Your task to perform on an android device: delete location history Image 0: 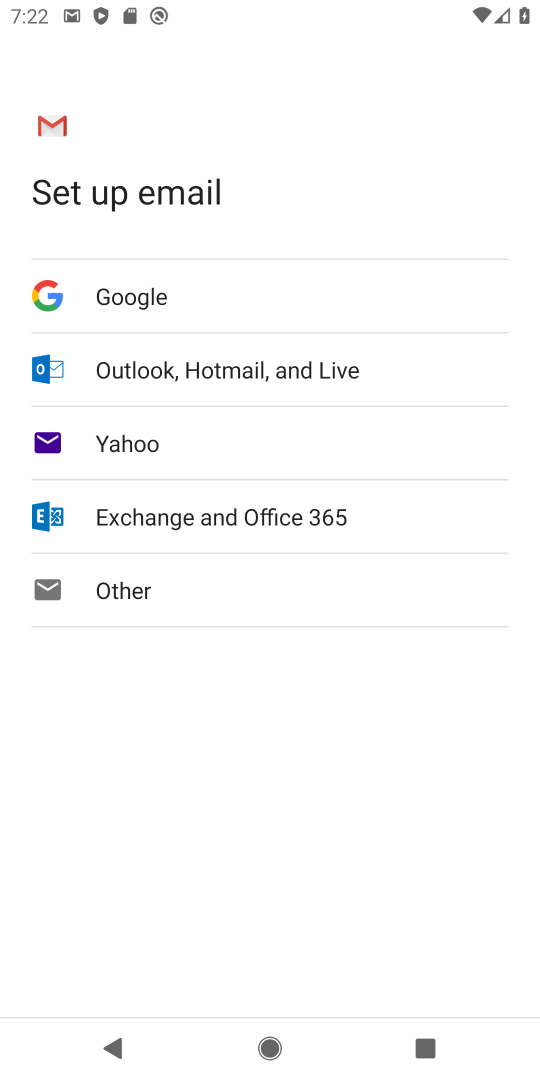
Step 0: press home button
Your task to perform on an android device: delete location history Image 1: 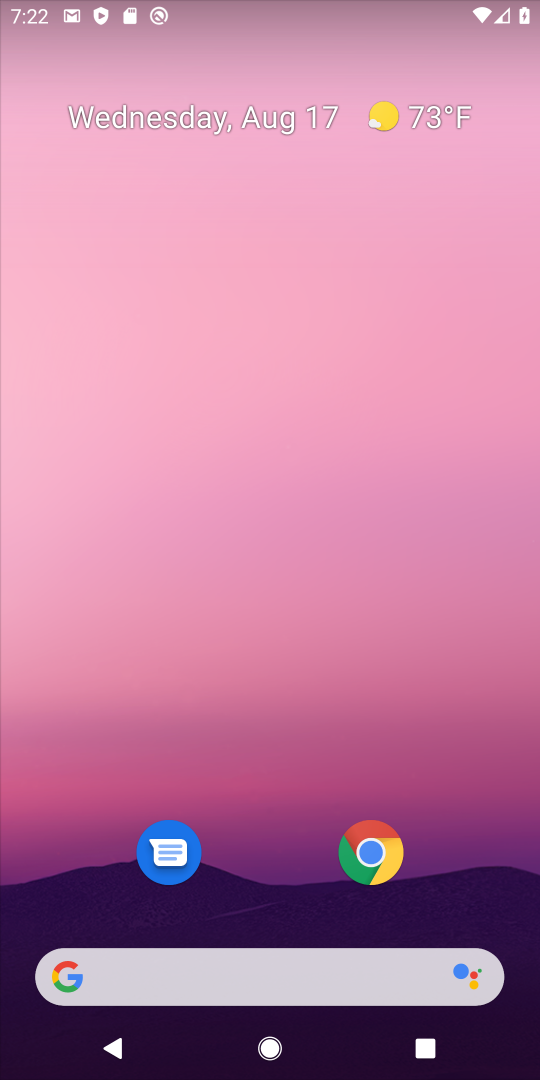
Step 1: drag from (261, 848) to (247, 90)
Your task to perform on an android device: delete location history Image 2: 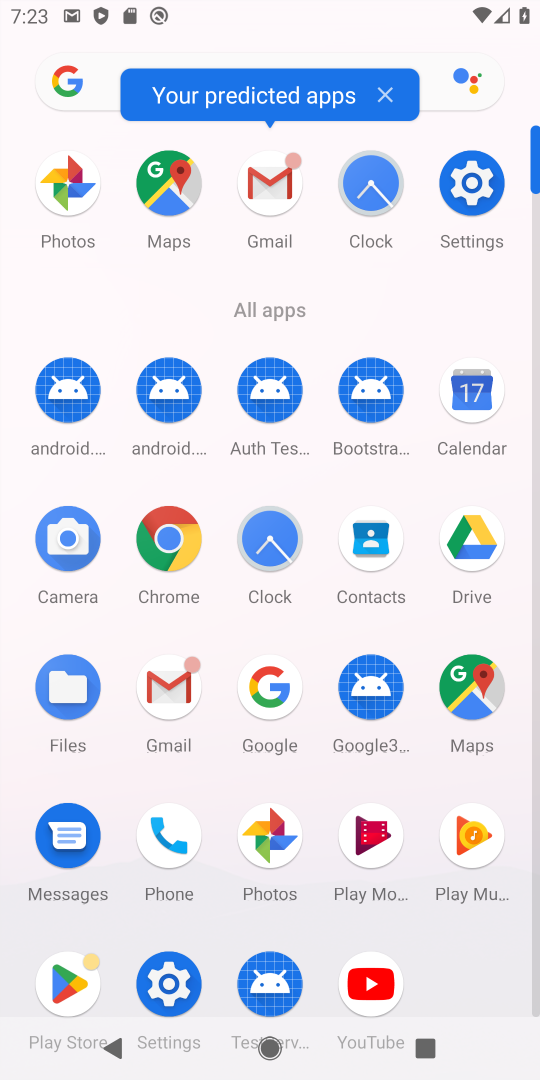
Step 2: click (159, 192)
Your task to perform on an android device: delete location history Image 3: 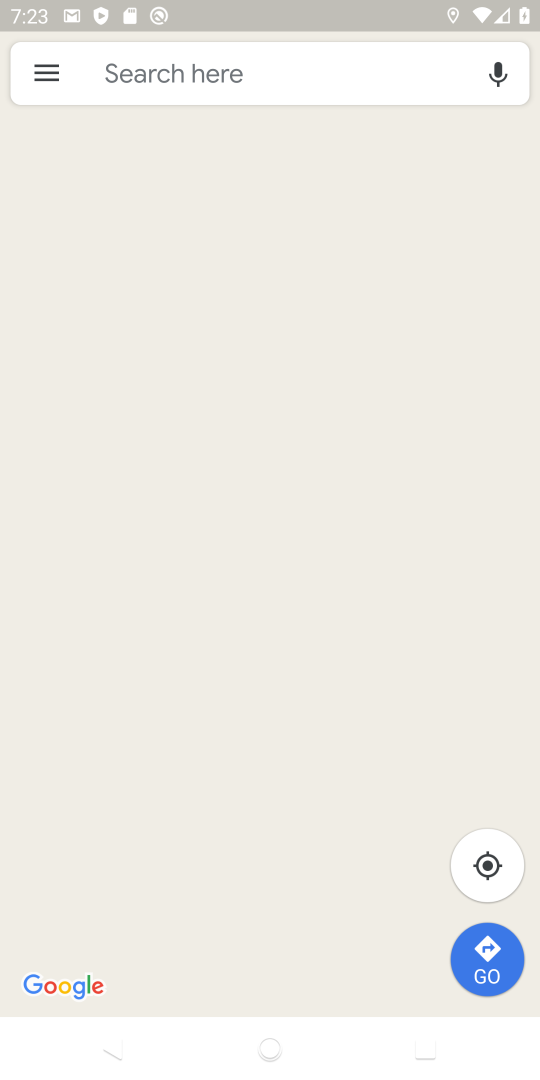
Step 3: click (46, 80)
Your task to perform on an android device: delete location history Image 4: 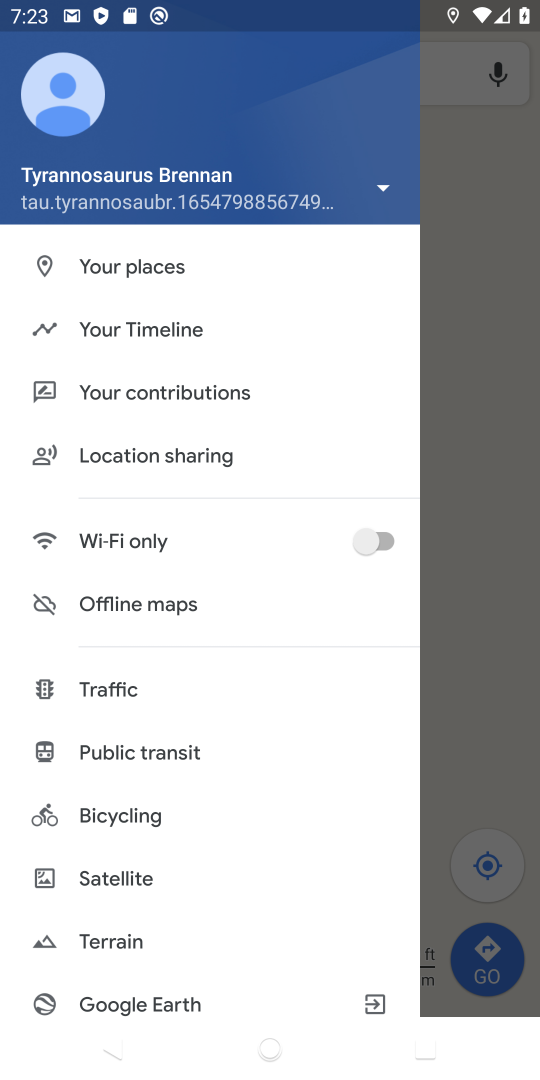
Step 4: click (157, 330)
Your task to perform on an android device: delete location history Image 5: 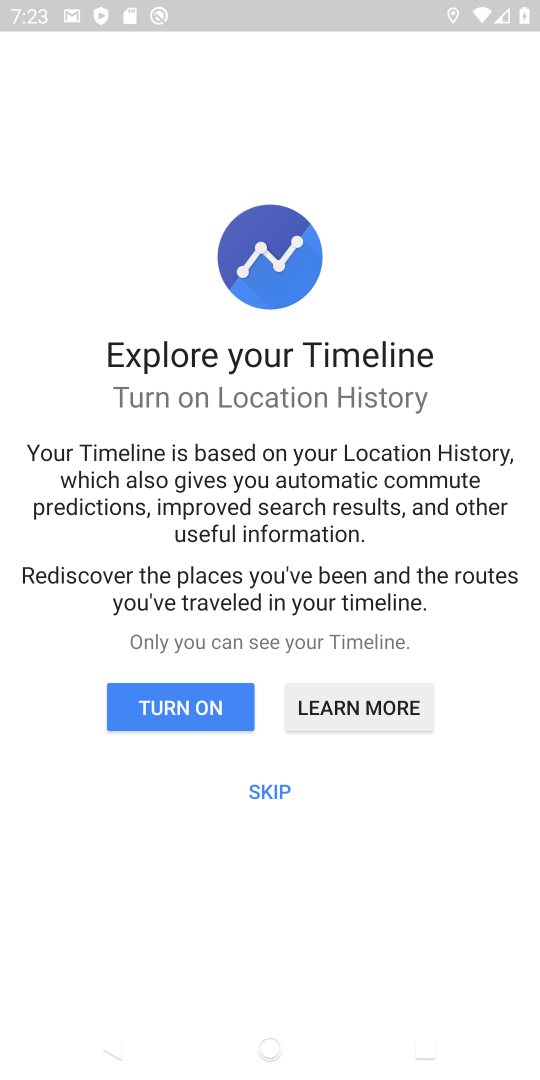
Step 5: click (193, 717)
Your task to perform on an android device: delete location history Image 6: 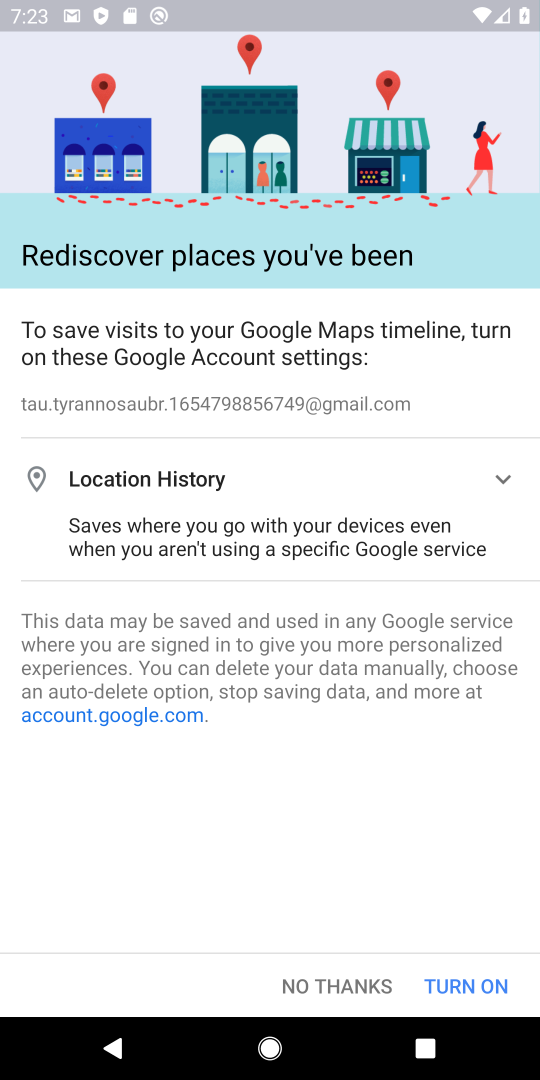
Step 6: click (446, 985)
Your task to perform on an android device: delete location history Image 7: 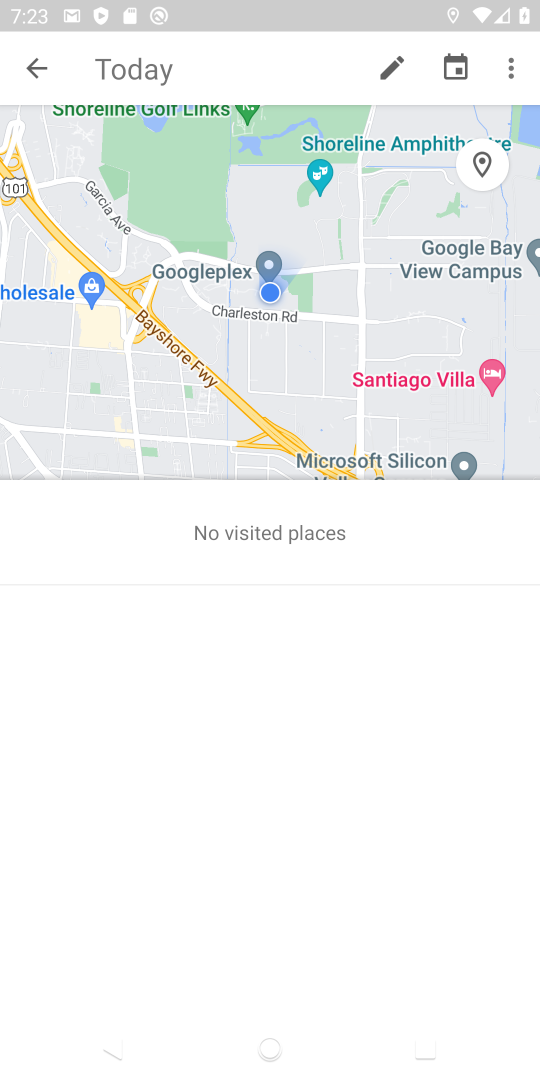
Step 7: click (505, 65)
Your task to perform on an android device: delete location history Image 8: 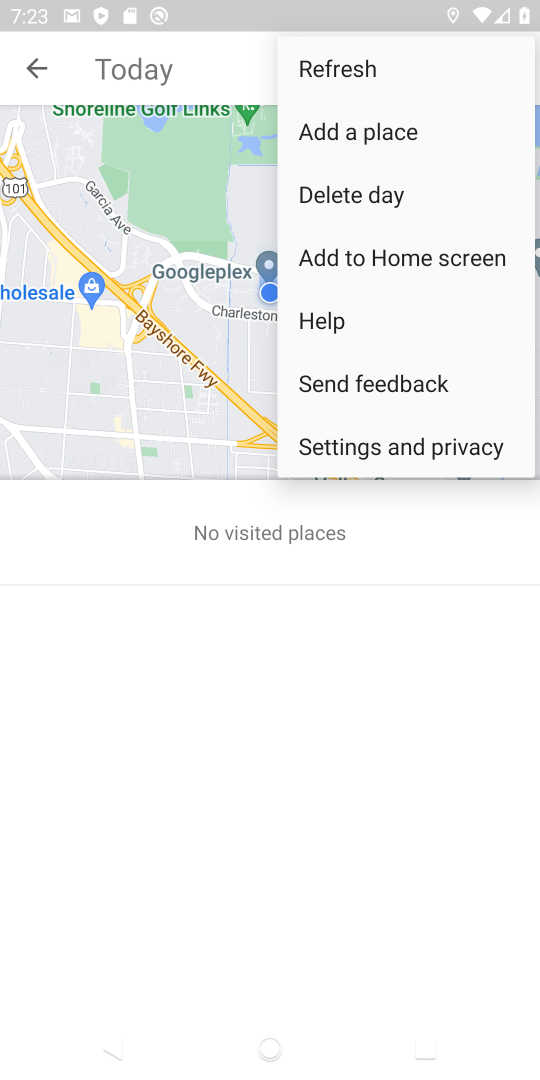
Step 8: click (415, 438)
Your task to perform on an android device: delete location history Image 9: 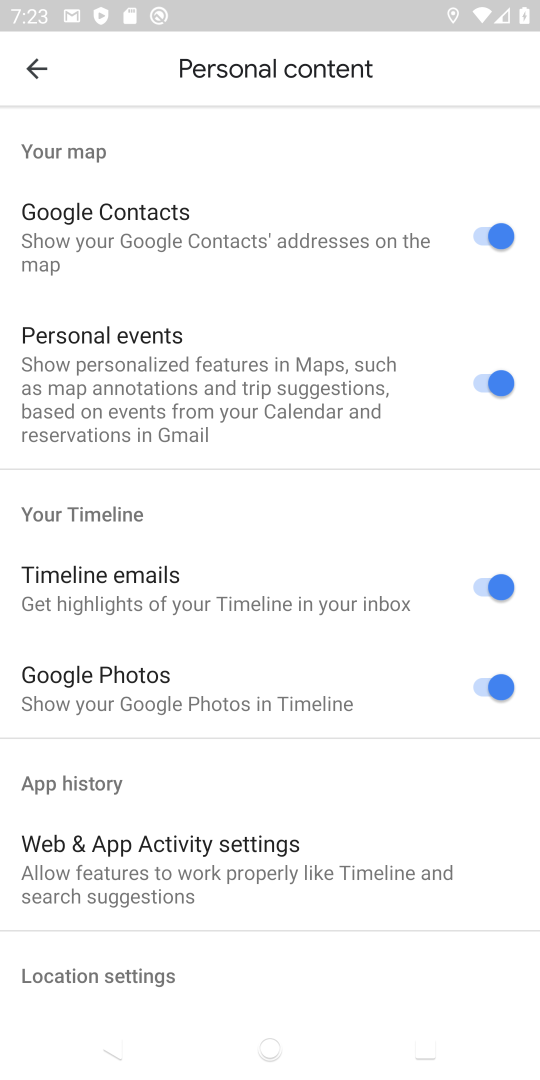
Step 9: drag from (322, 814) to (295, 358)
Your task to perform on an android device: delete location history Image 10: 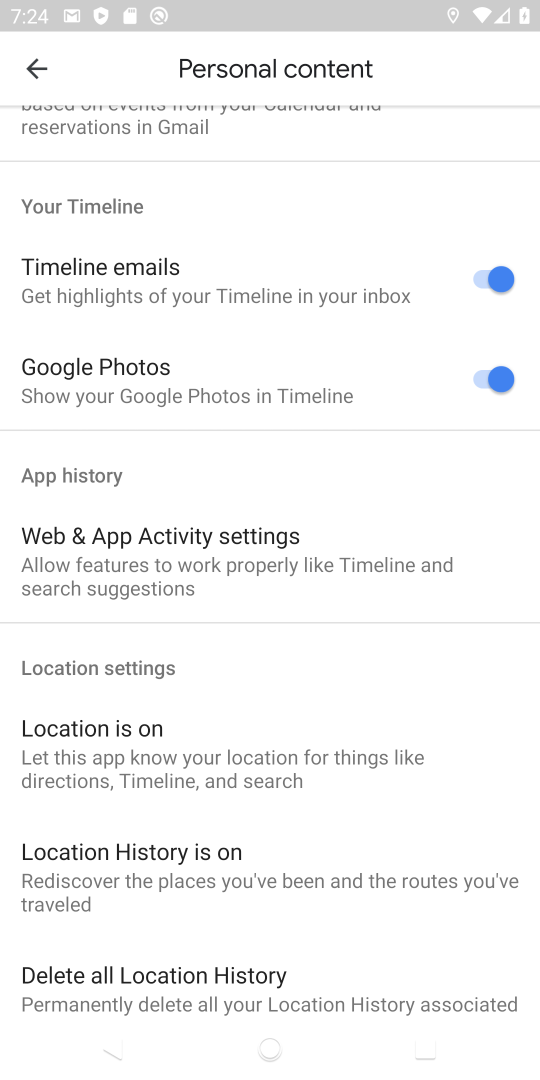
Step 10: click (152, 977)
Your task to perform on an android device: delete location history Image 11: 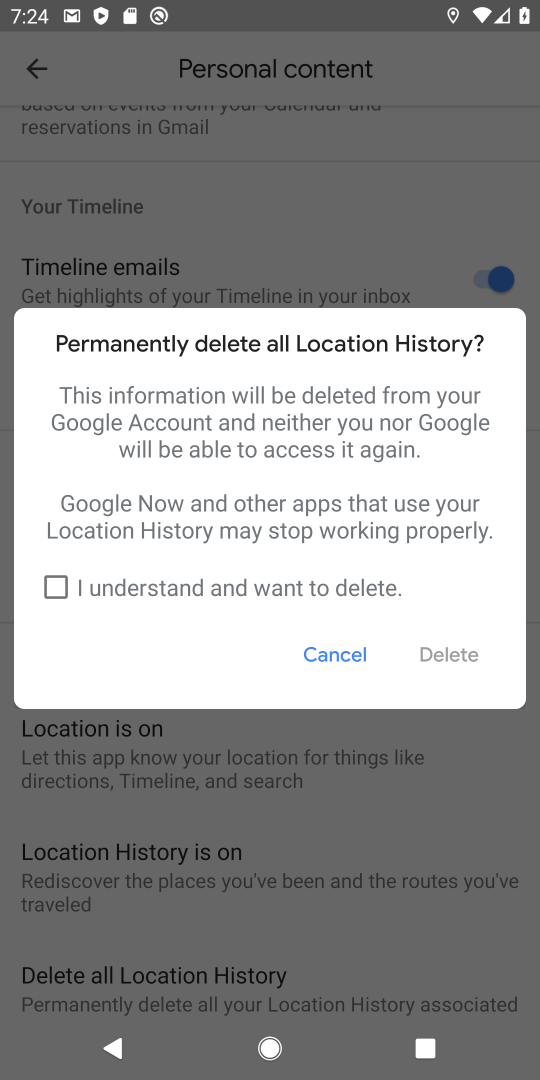
Step 11: click (53, 585)
Your task to perform on an android device: delete location history Image 12: 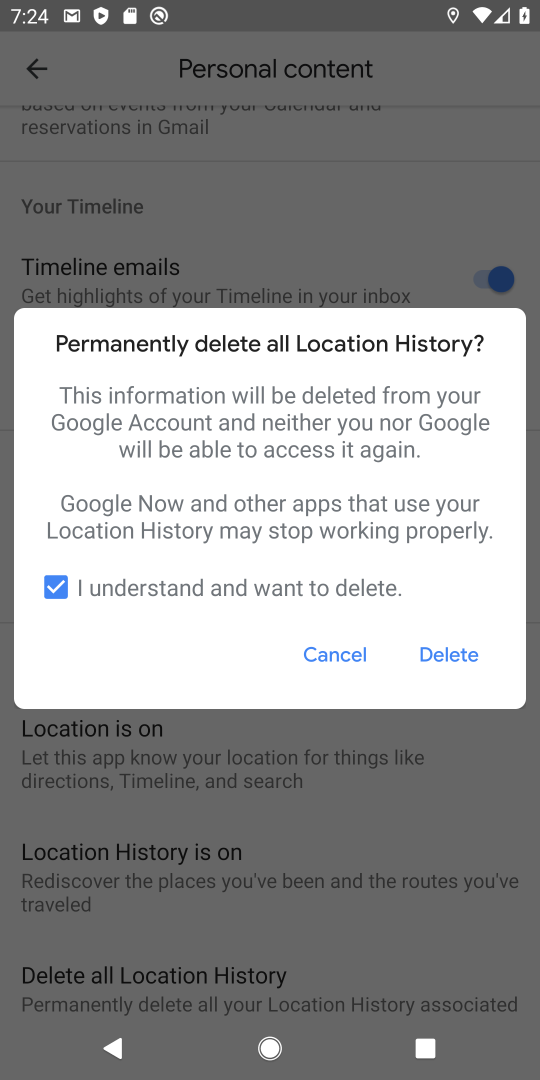
Step 12: click (453, 651)
Your task to perform on an android device: delete location history Image 13: 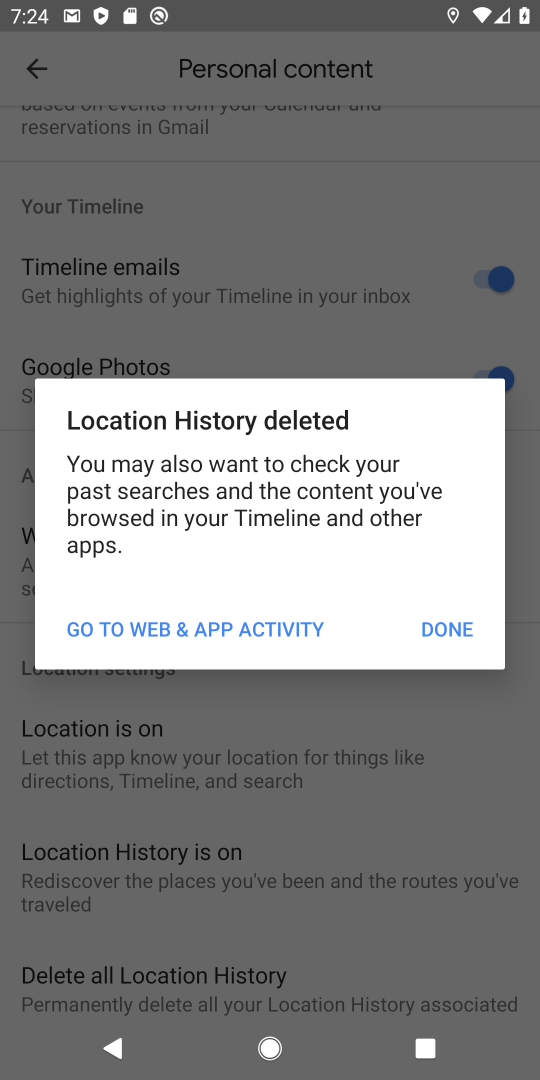
Step 13: click (447, 616)
Your task to perform on an android device: delete location history Image 14: 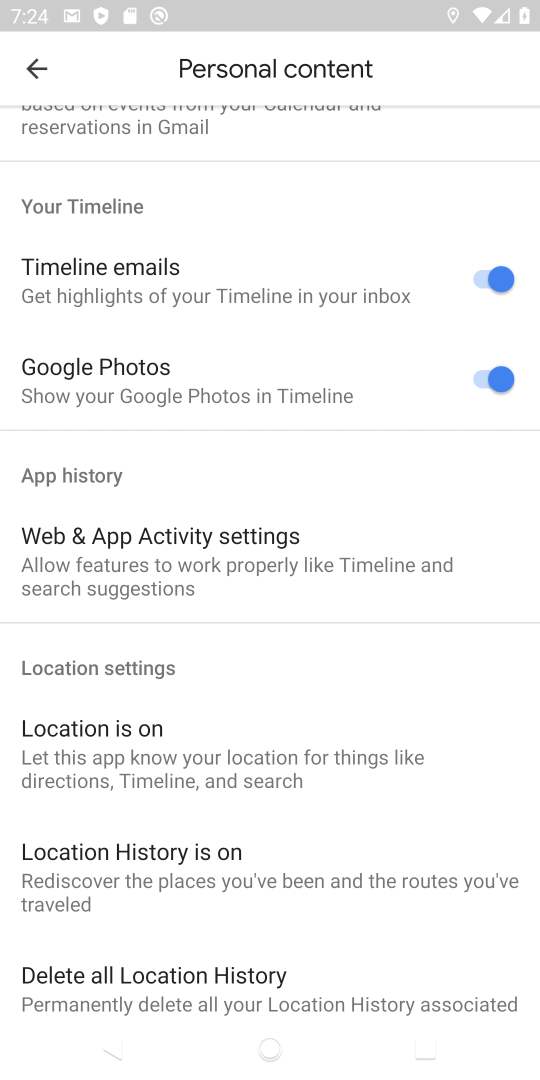
Step 14: task complete